Your task to perform on an android device: Search for "apple airpods pro" on ebay.com, select the first entry, and add it to the cart. Image 0: 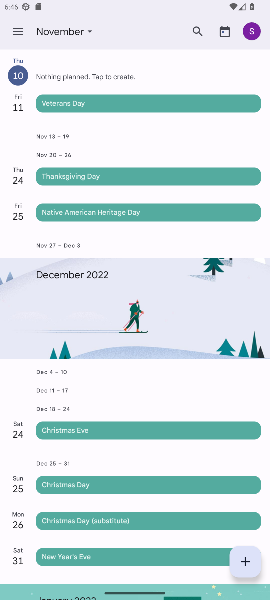
Step 0: press home button
Your task to perform on an android device: Search for "apple airpods pro" on ebay.com, select the first entry, and add it to the cart. Image 1: 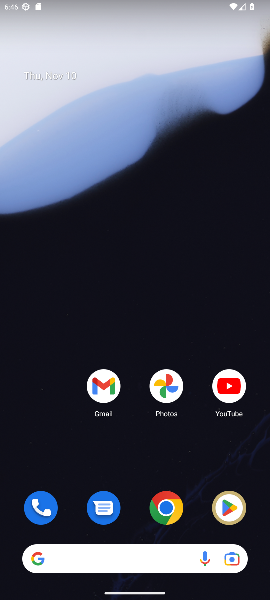
Step 1: click (168, 504)
Your task to perform on an android device: Search for "apple airpods pro" on ebay.com, select the first entry, and add it to the cart. Image 2: 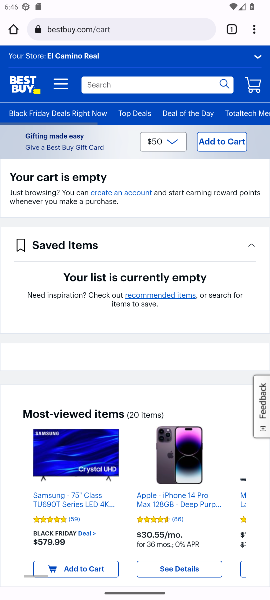
Step 2: click (109, 27)
Your task to perform on an android device: Search for "apple airpods pro" on ebay.com, select the first entry, and add it to the cart. Image 3: 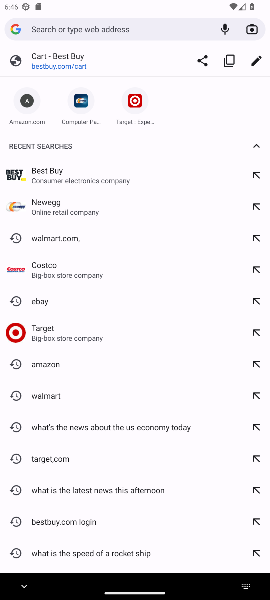
Step 3: click (37, 300)
Your task to perform on an android device: Search for "apple airpods pro" on ebay.com, select the first entry, and add it to the cart. Image 4: 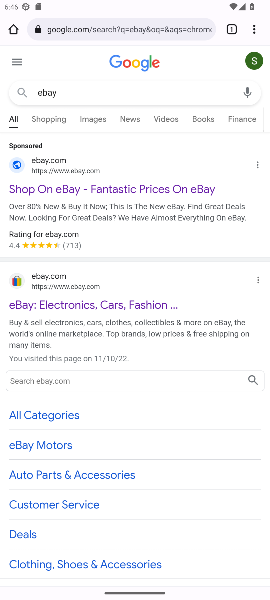
Step 4: click (46, 314)
Your task to perform on an android device: Search for "apple airpods pro" on ebay.com, select the first entry, and add it to the cart. Image 5: 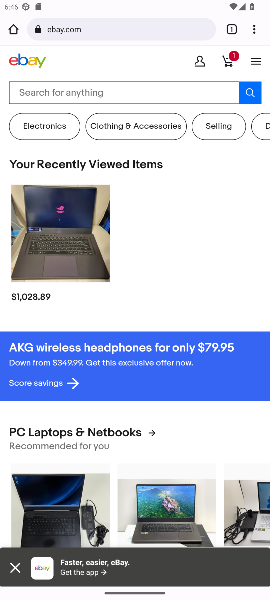
Step 5: click (121, 92)
Your task to perform on an android device: Search for "apple airpods pro" on ebay.com, select the first entry, and add it to the cart. Image 6: 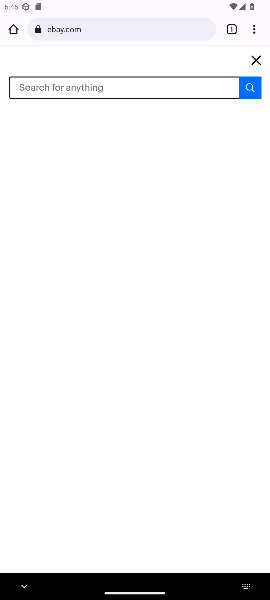
Step 6: type "apple airpods pro"
Your task to perform on an android device: Search for "apple airpods pro" on ebay.com, select the first entry, and add it to the cart. Image 7: 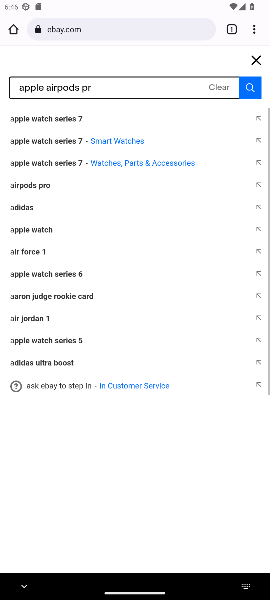
Step 7: press enter
Your task to perform on an android device: Search for "apple airpods pro" on ebay.com, select the first entry, and add it to the cart. Image 8: 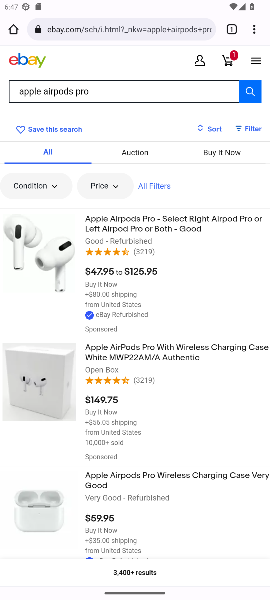
Step 8: click (175, 242)
Your task to perform on an android device: Search for "apple airpods pro" on ebay.com, select the first entry, and add it to the cart. Image 9: 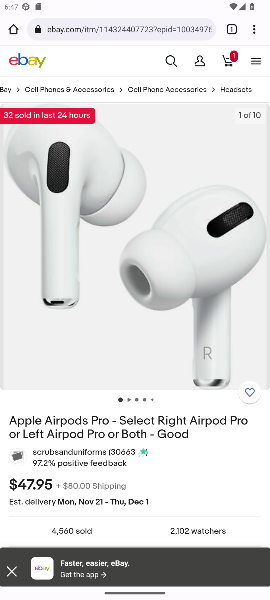
Step 9: drag from (113, 482) to (166, 313)
Your task to perform on an android device: Search for "apple airpods pro" on ebay.com, select the first entry, and add it to the cart. Image 10: 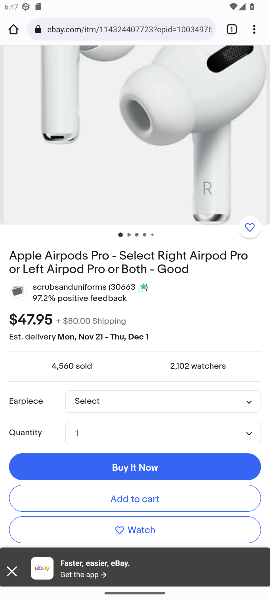
Step 10: drag from (134, 371) to (199, 204)
Your task to perform on an android device: Search for "apple airpods pro" on ebay.com, select the first entry, and add it to the cart. Image 11: 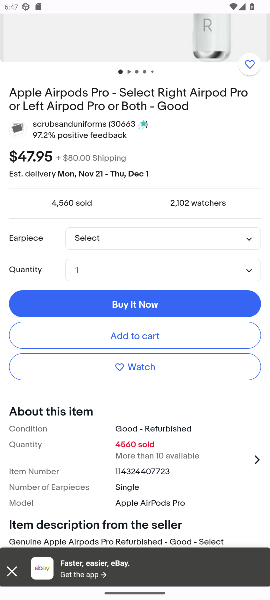
Step 11: click (250, 237)
Your task to perform on an android device: Search for "apple airpods pro" on ebay.com, select the first entry, and add it to the cart. Image 12: 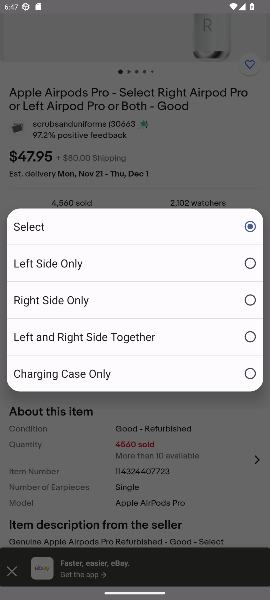
Step 12: click (247, 337)
Your task to perform on an android device: Search for "apple airpods pro" on ebay.com, select the first entry, and add it to the cart. Image 13: 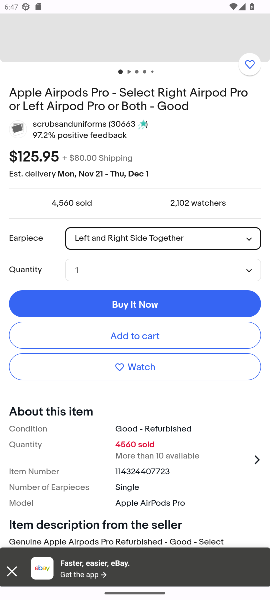
Step 13: click (136, 335)
Your task to perform on an android device: Search for "apple airpods pro" on ebay.com, select the first entry, and add it to the cart. Image 14: 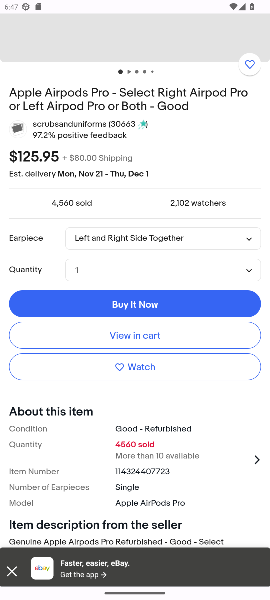
Step 14: click (158, 332)
Your task to perform on an android device: Search for "apple airpods pro" on ebay.com, select the first entry, and add it to the cart. Image 15: 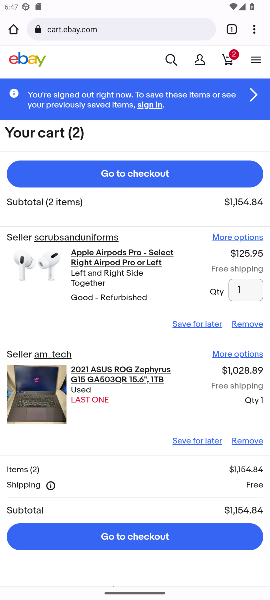
Step 15: click (244, 440)
Your task to perform on an android device: Search for "apple airpods pro" on ebay.com, select the first entry, and add it to the cart. Image 16: 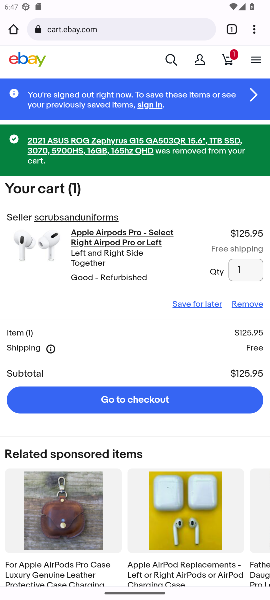
Step 16: task complete